Your task to perform on an android device: change the clock style Image 0: 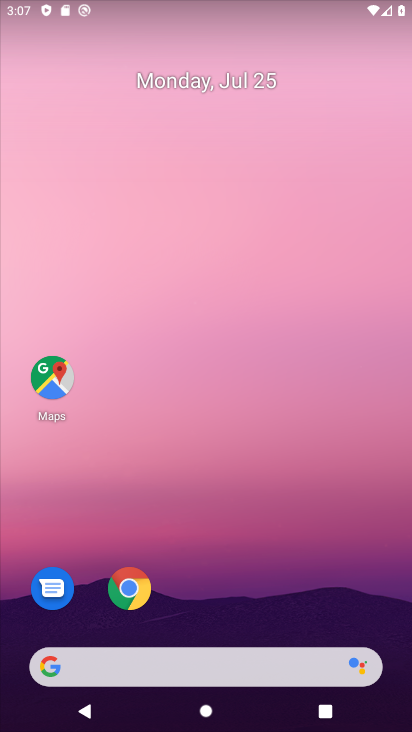
Step 0: click (361, 537)
Your task to perform on an android device: change the clock style Image 1: 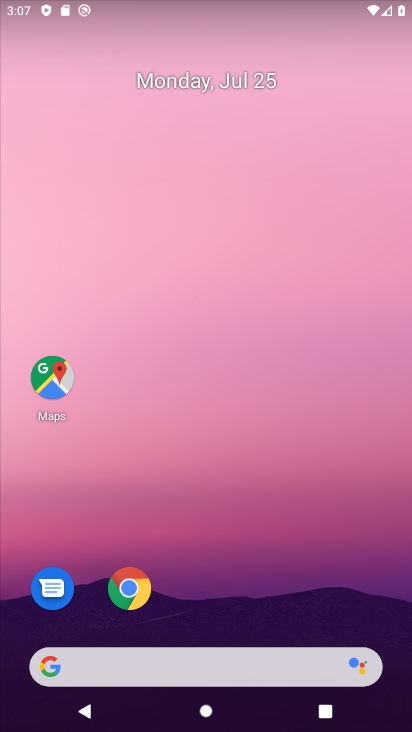
Step 1: drag from (289, 562) to (185, 11)
Your task to perform on an android device: change the clock style Image 2: 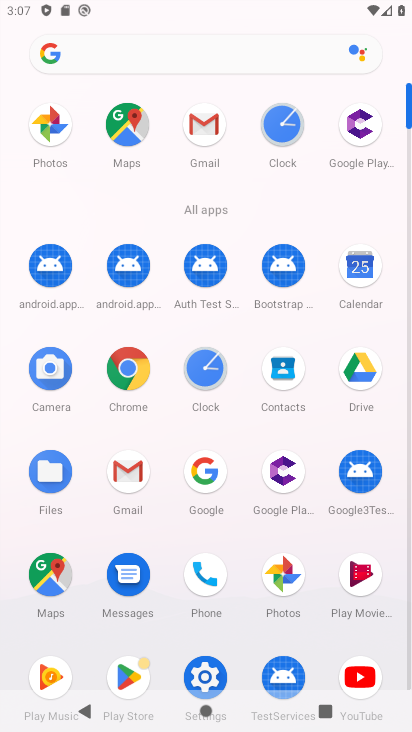
Step 2: click (280, 131)
Your task to perform on an android device: change the clock style Image 3: 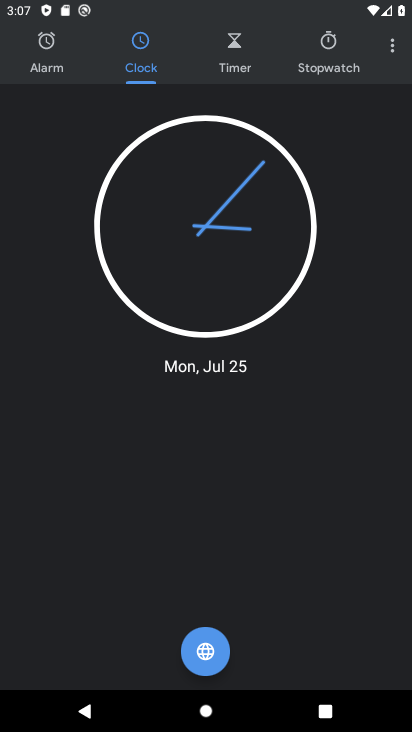
Step 3: click (388, 50)
Your task to perform on an android device: change the clock style Image 4: 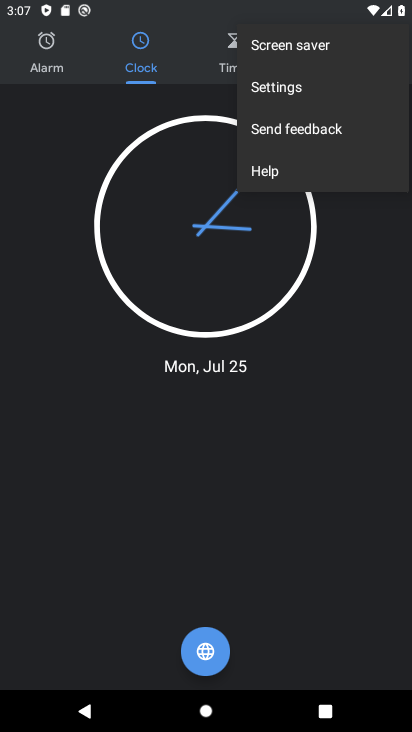
Step 4: click (291, 86)
Your task to perform on an android device: change the clock style Image 5: 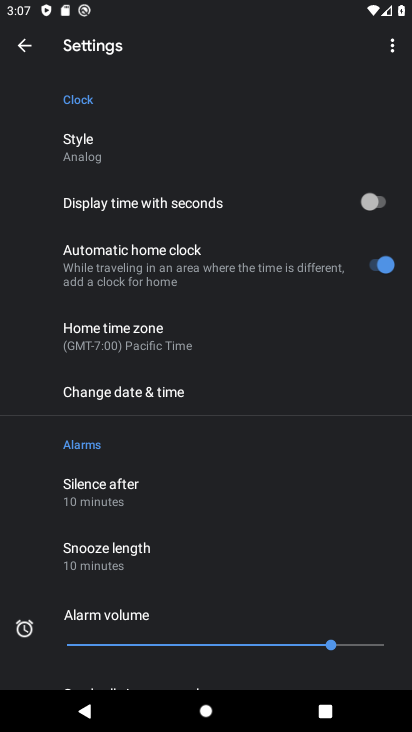
Step 5: click (83, 136)
Your task to perform on an android device: change the clock style Image 6: 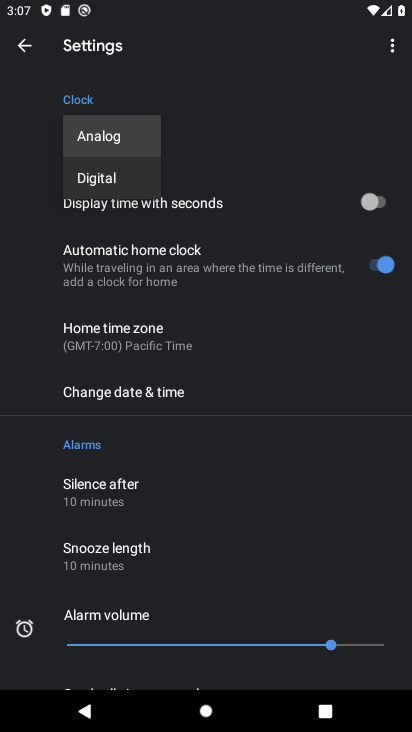
Step 6: click (105, 178)
Your task to perform on an android device: change the clock style Image 7: 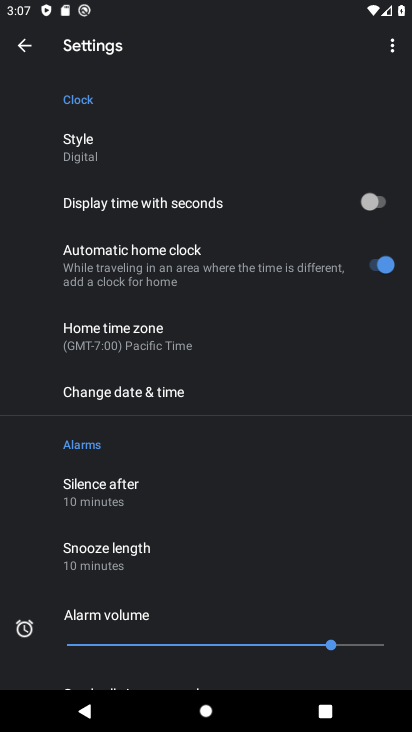
Step 7: task complete